Your task to perform on an android device: toggle pop-ups in chrome Image 0: 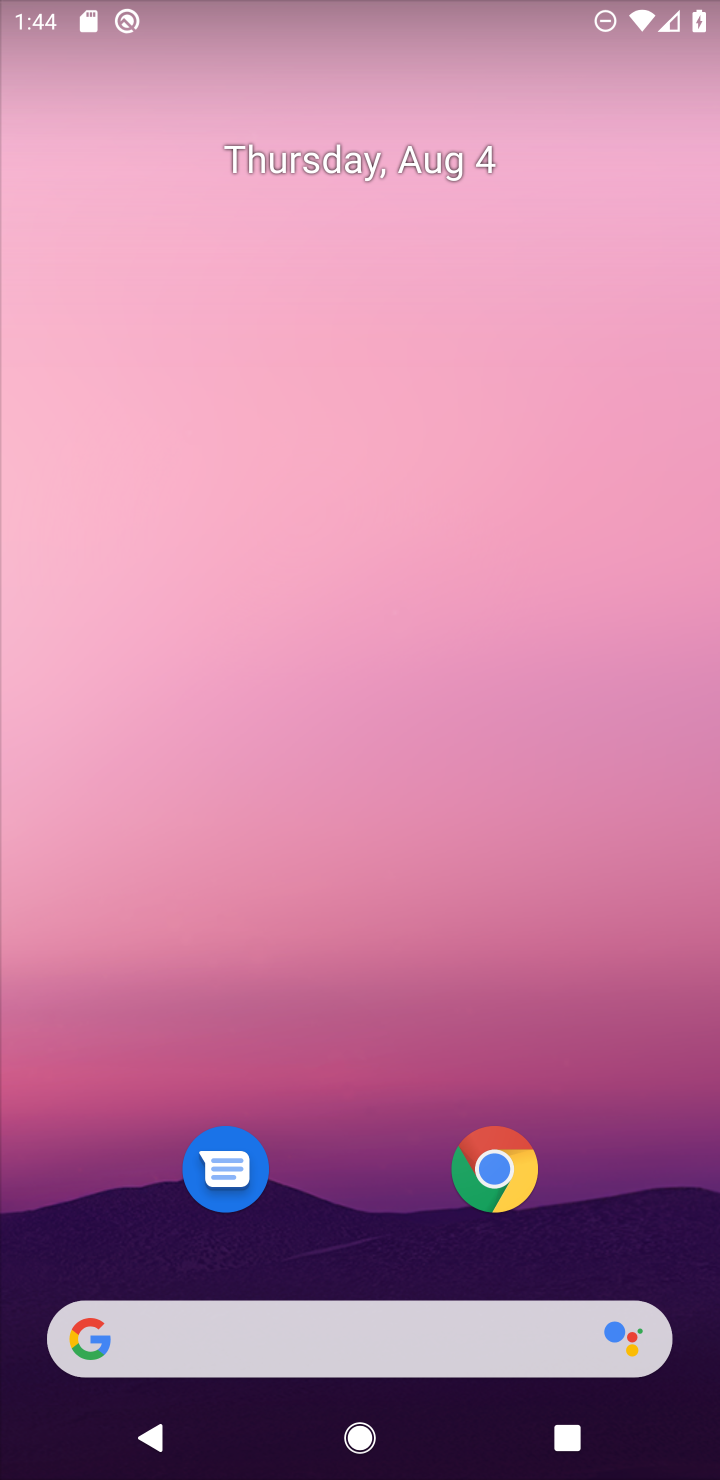
Step 0: click (490, 1166)
Your task to perform on an android device: toggle pop-ups in chrome Image 1: 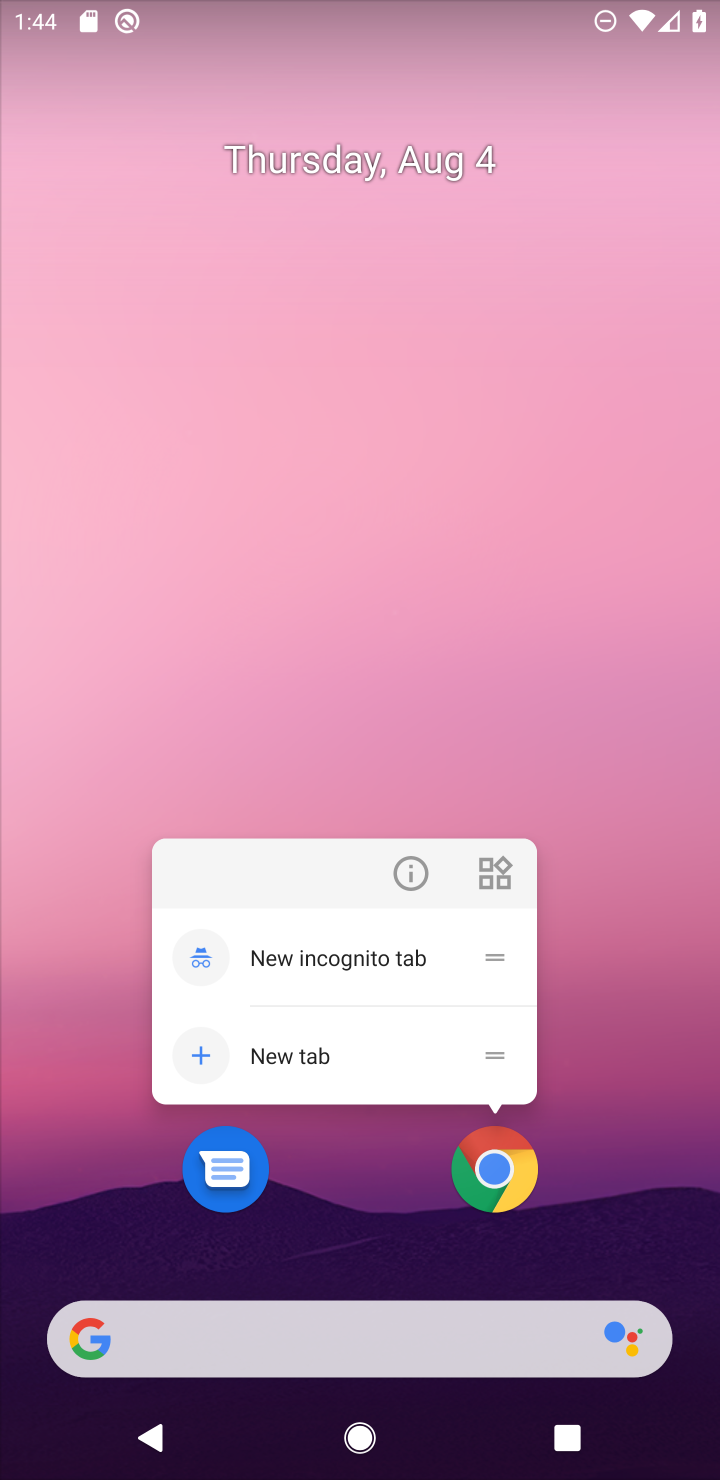
Step 1: click (492, 1176)
Your task to perform on an android device: toggle pop-ups in chrome Image 2: 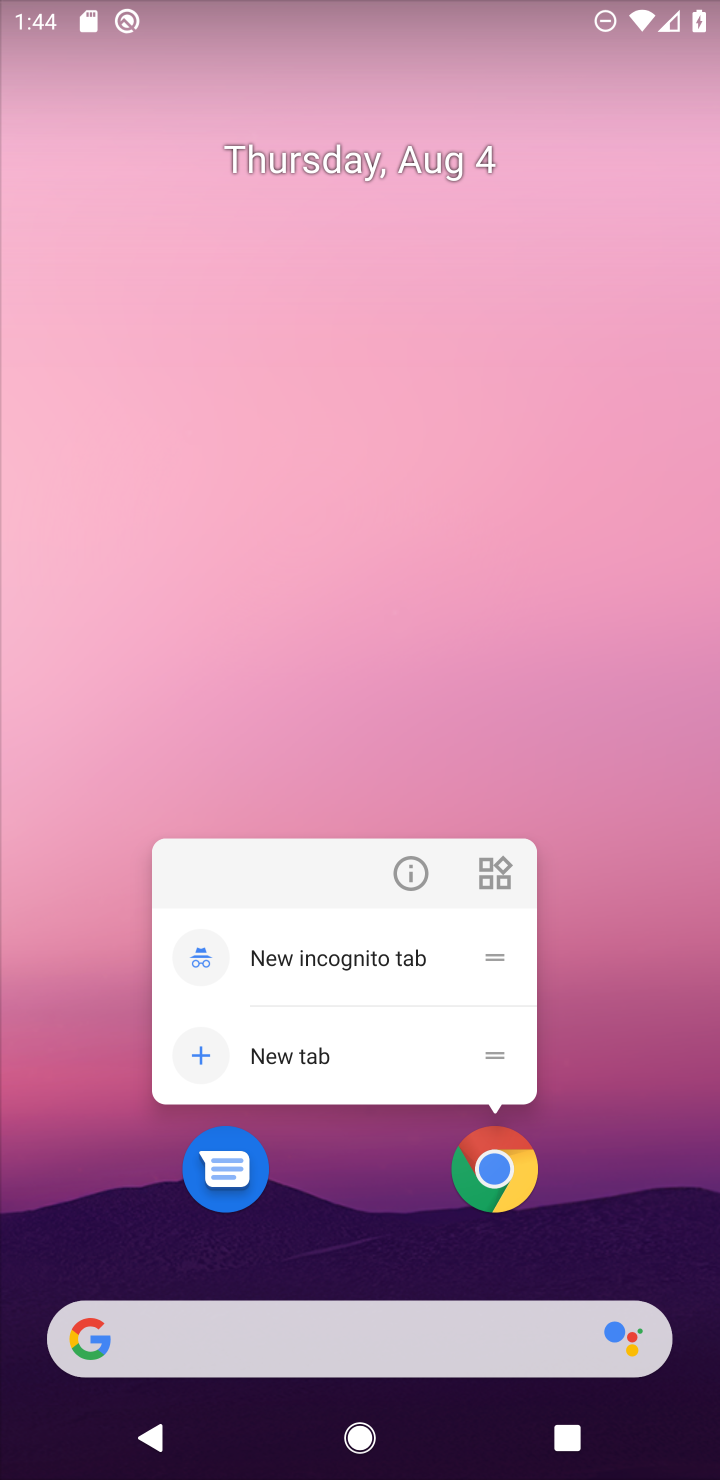
Step 2: click (492, 1176)
Your task to perform on an android device: toggle pop-ups in chrome Image 3: 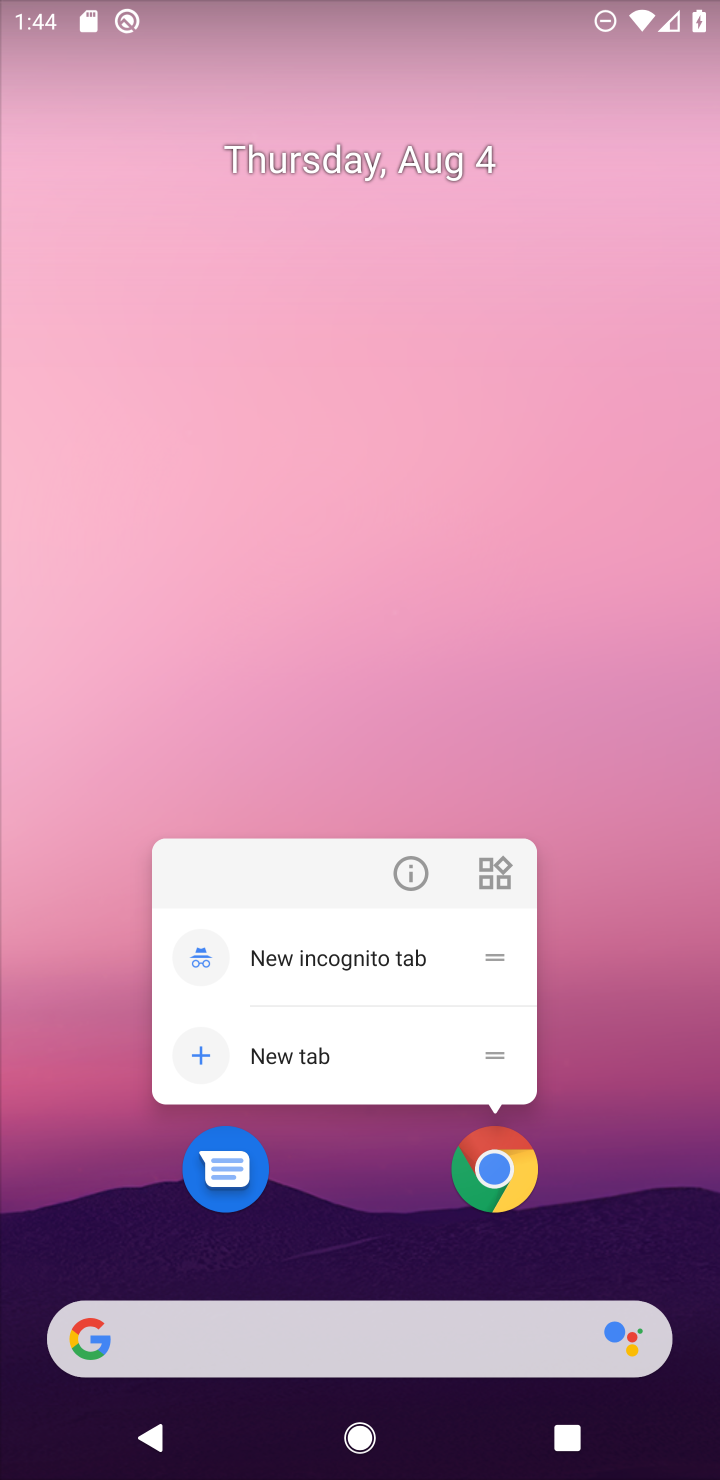
Step 3: click (492, 1176)
Your task to perform on an android device: toggle pop-ups in chrome Image 4: 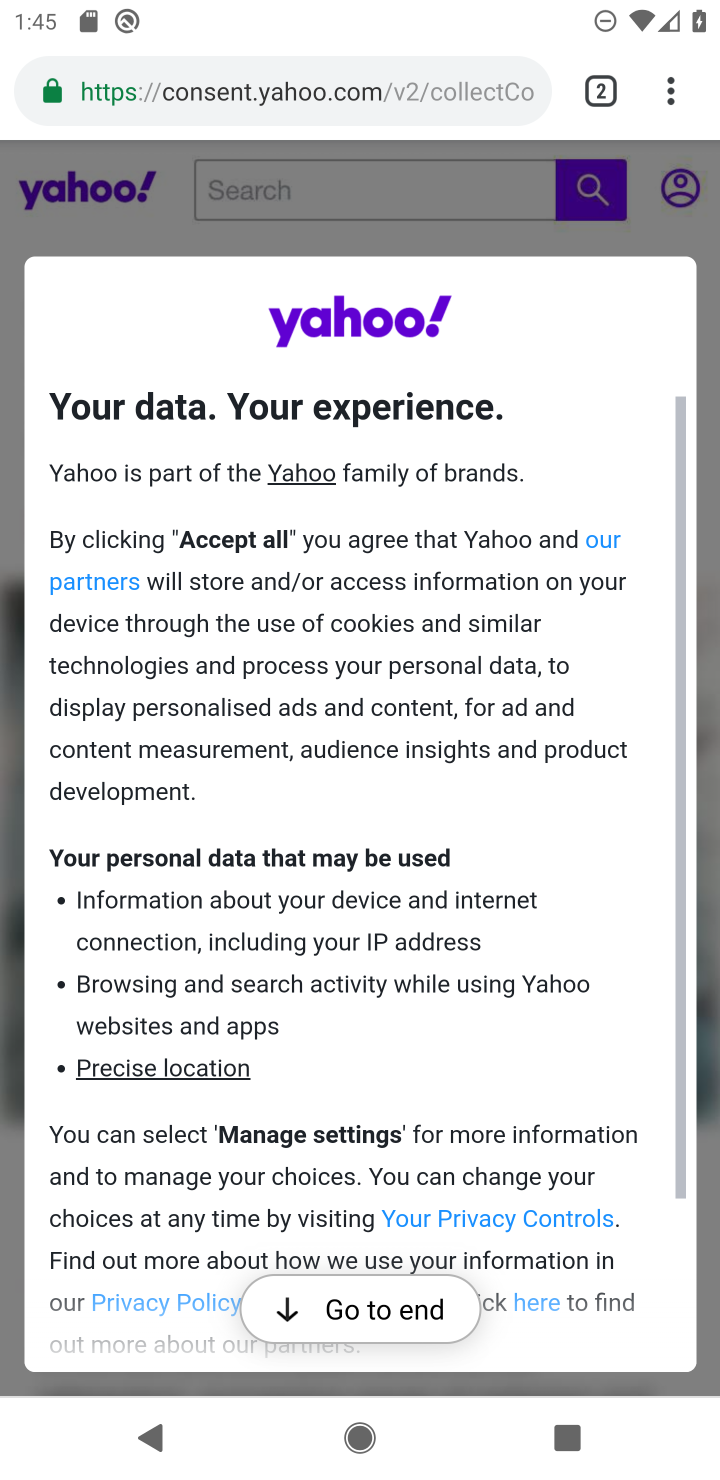
Step 4: drag from (675, 95) to (373, 1110)
Your task to perform on an android device: toggle pop-ups in chrome Image 5: 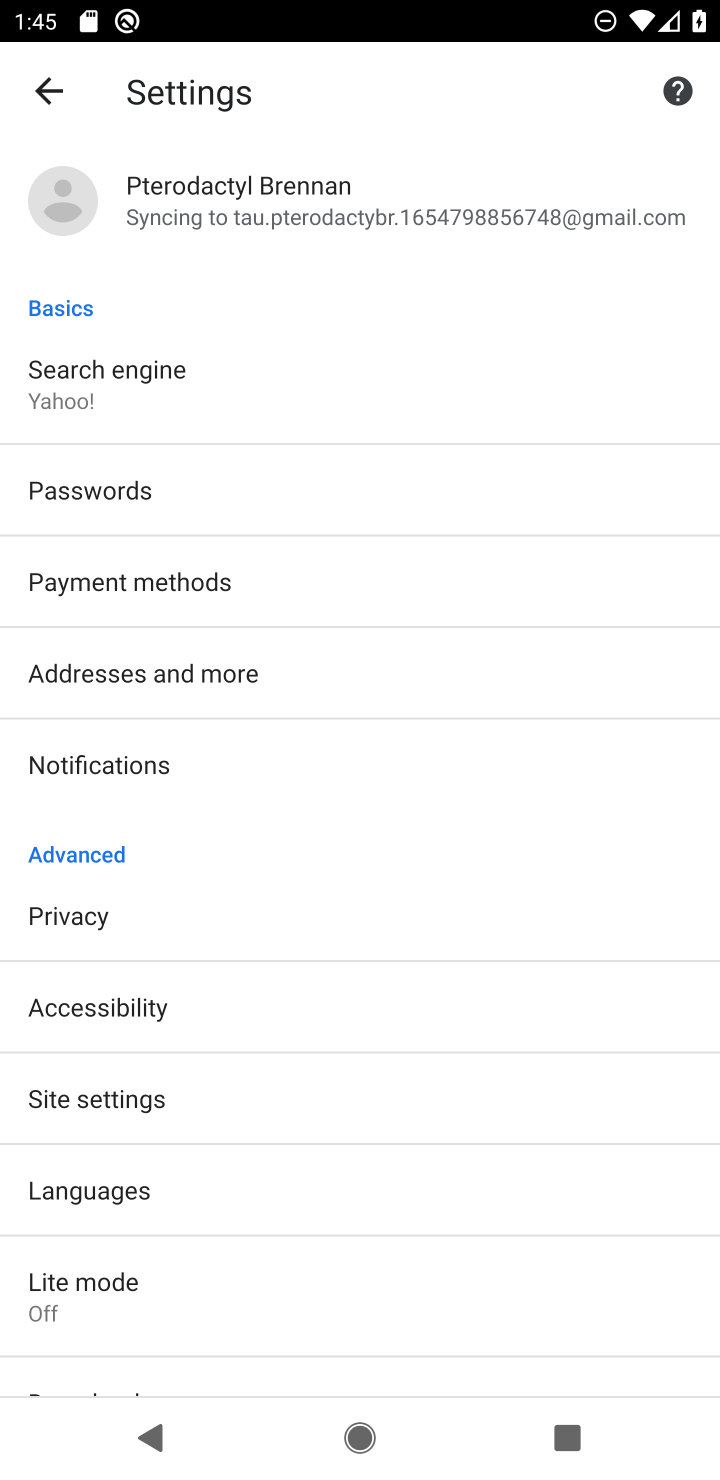
Step 5: click (224, 1081)
Your task to perform on an android device: toggle pop-ups in chrome Image 6: 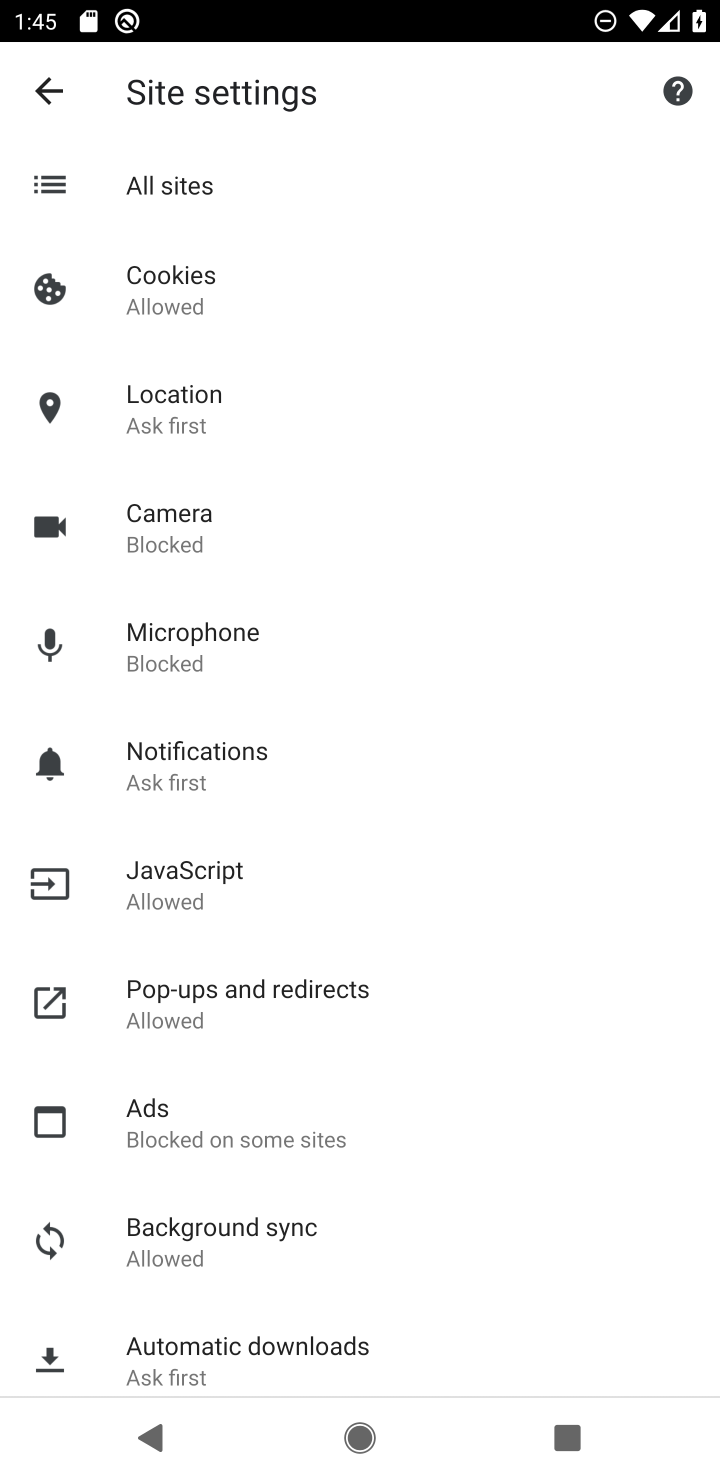
Step 6: click (163, 993)
Your task to perform on an android device: toggle pop-ups in chrome Image 7: 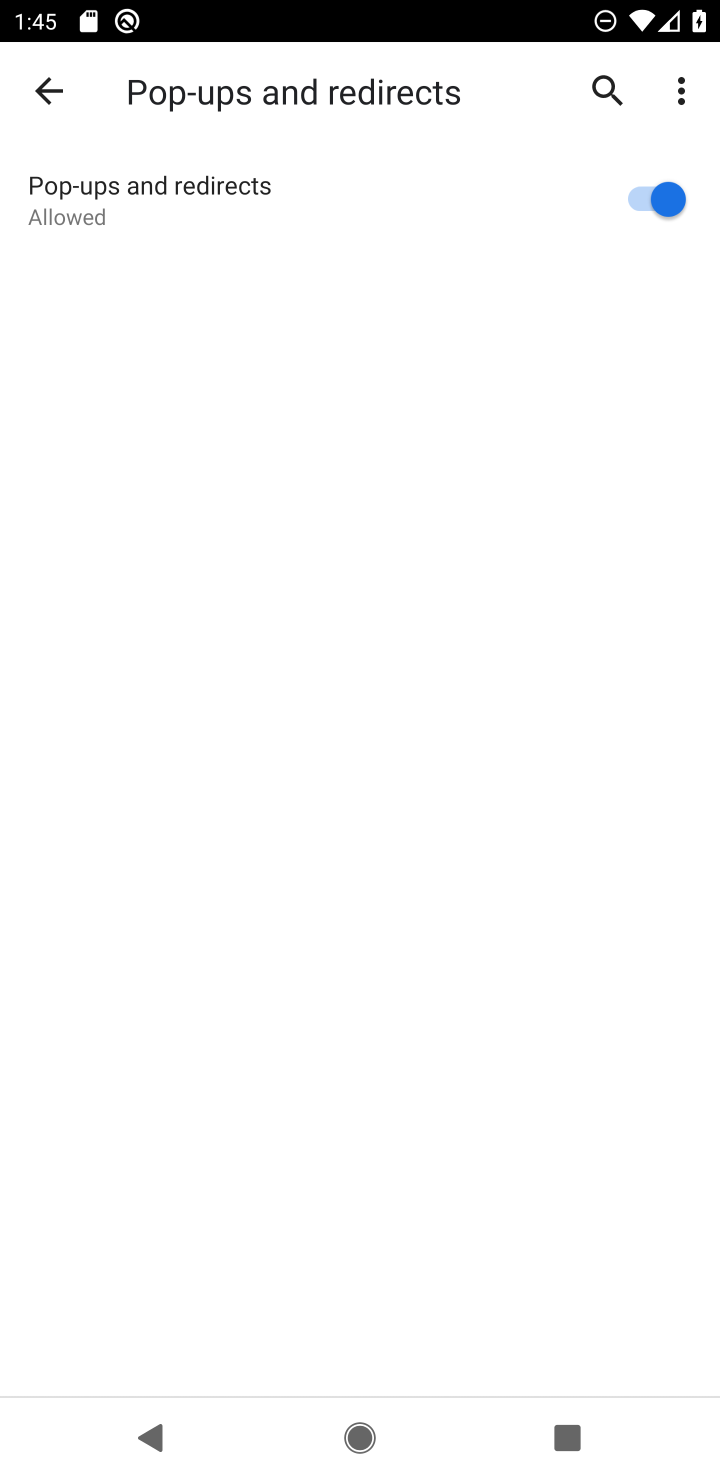
Step 7: click (669, 192)
Your task to perform on an android device: toggle pop-ups in chrome Image 8: 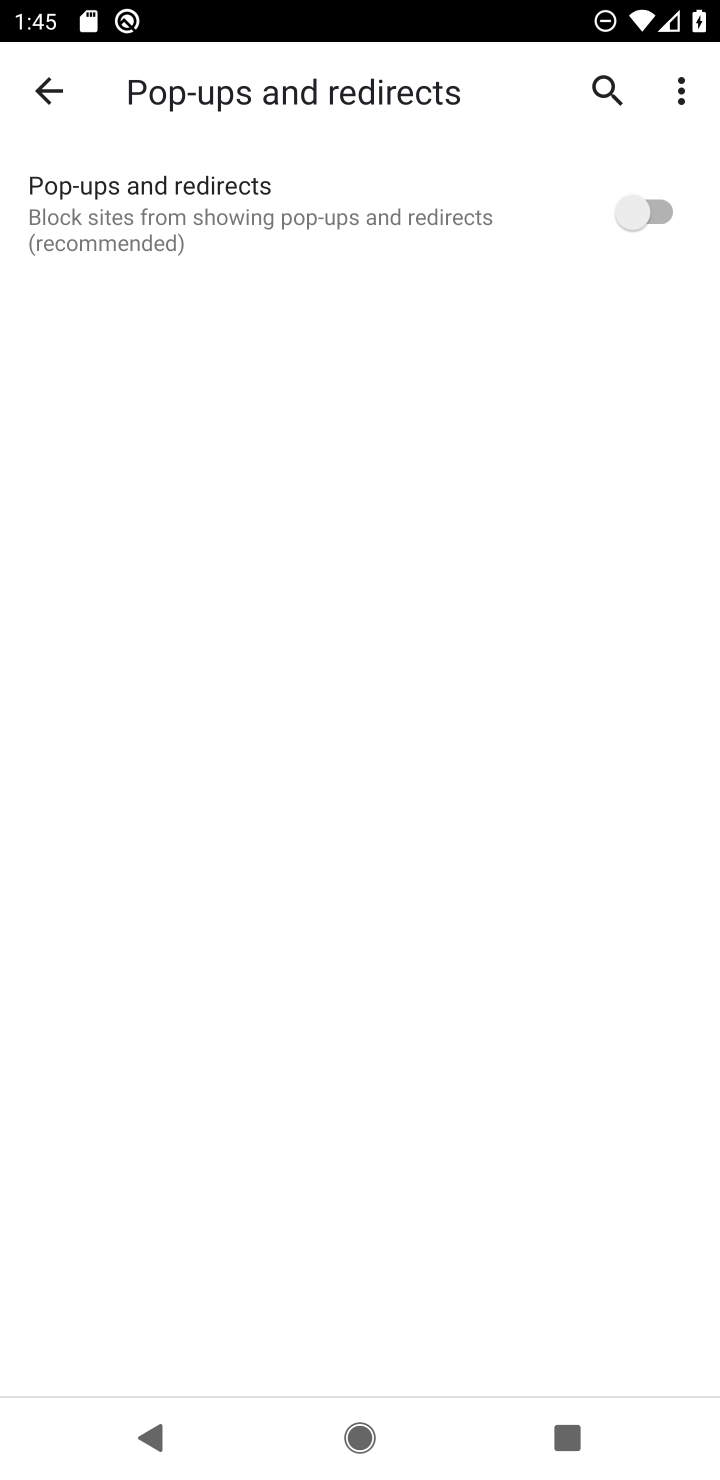
Step 8: task complete